Your task to perform on an android device: What is the recent news? Image 0: 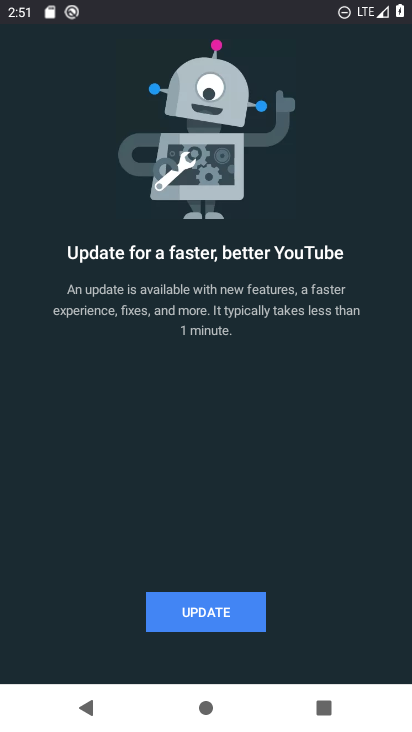
Step 0: press back button
Your task to perform on an android device: What is the recent news? Image 1: 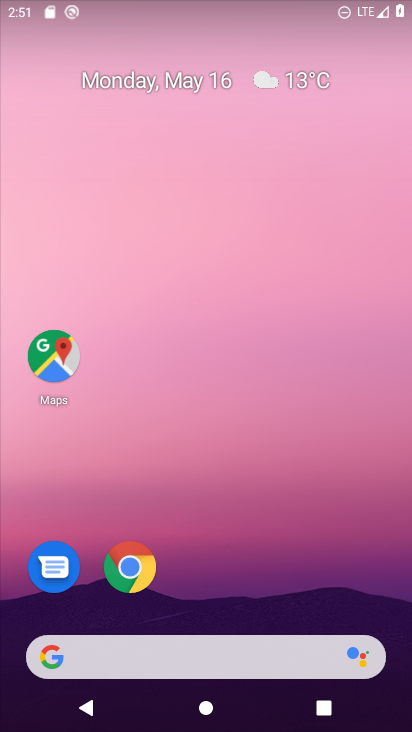
Step 1: task complete